Your task to perform on an android device: Open the Play Movies app and select the watchlist tab. Image 0: 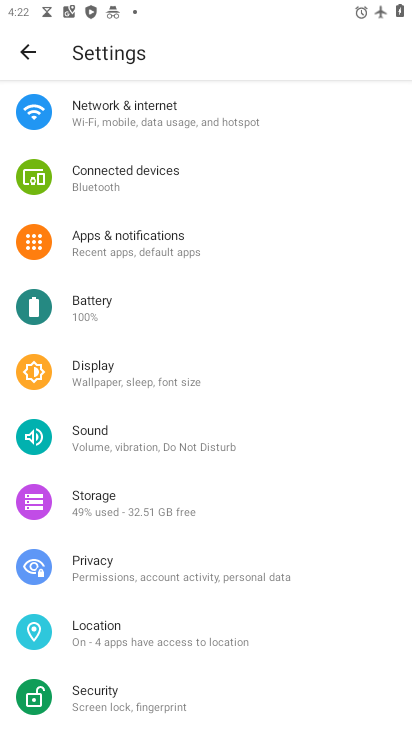
Step 0: press back button
Your task to perform on an android device: Open the Play Movies app and select the watchlist tab. Image 1: 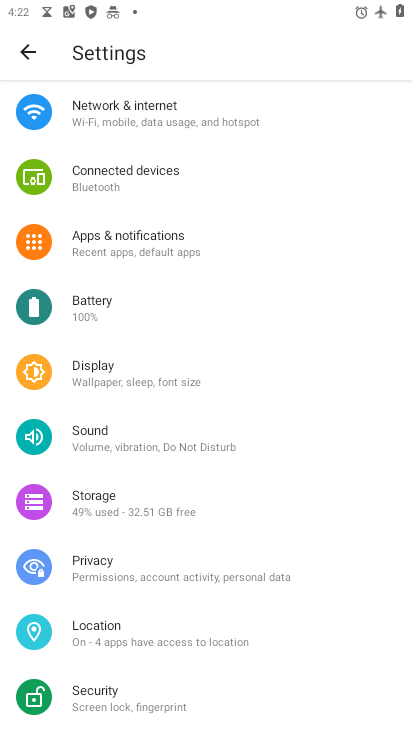
Step 1: press back button
Your task to perform on an android device: Open the Play Movies app and select the watchlist tab. Image 2: 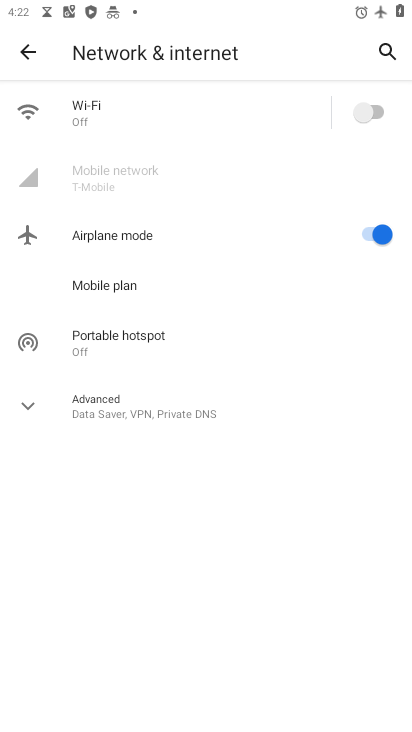
Step 2: press back button
Your task to perform on an android device: Open the Play Movies app and select the watchlist tab. Image 3: 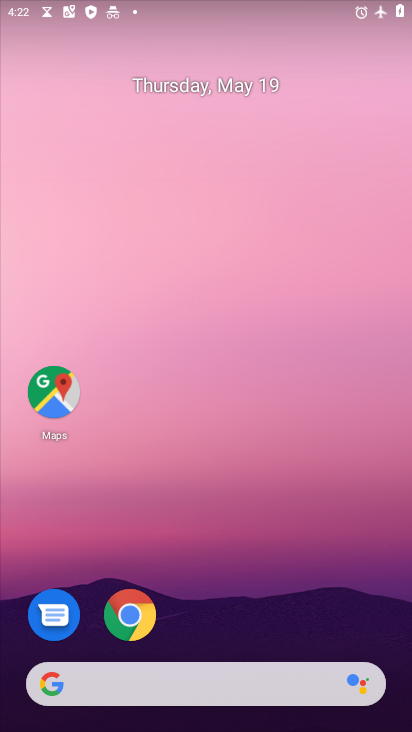
Step 3: drag from (264, 627) to (188, 200)
Your task to perform on an android device: Open the Play Movies app and select the watchlist tab. Image 4: 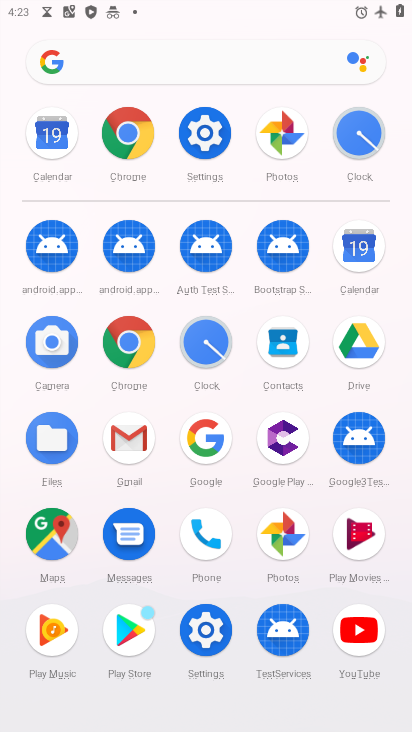
Step 4: click (350, 640)
Your task to perform on an android device: Open the Play Movies app and select the watchlist tab. Image 5: 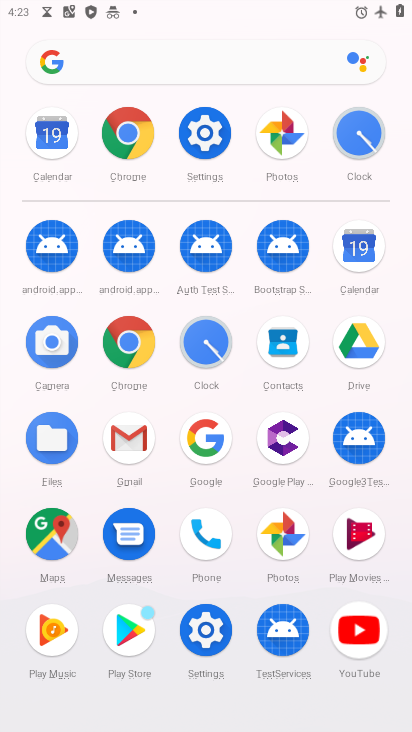
Step 5: click (352, 640)
Your task to perform on an android device: Open the Play Movies app and select the watchlist tab. Image 6: 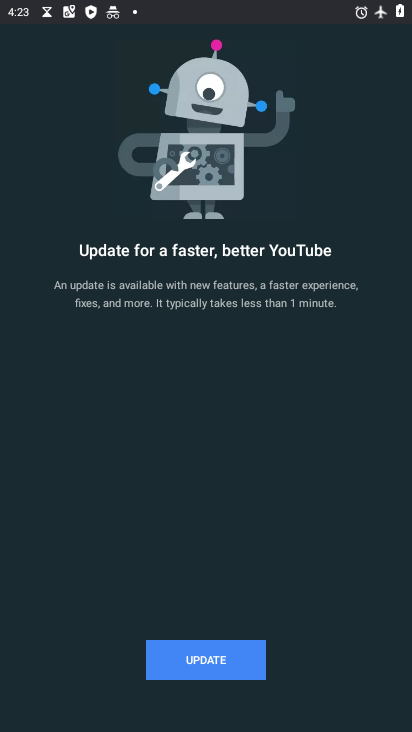
Step 6: click (214, 663)
Your task to perform on an android device: Open the Play Movies app and select the watchlist tab. Image 7: 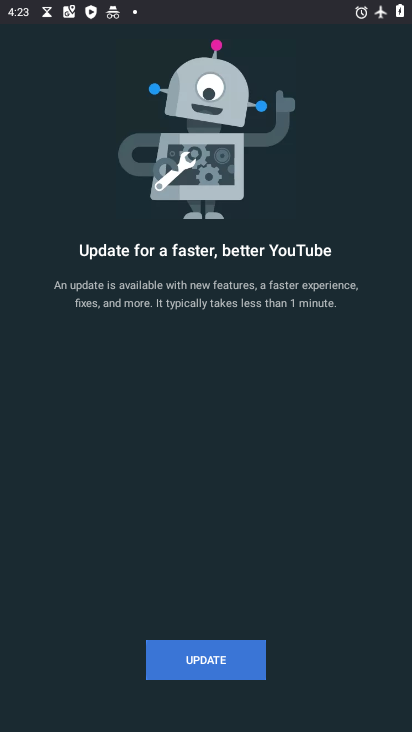
Step 7: click (214, 663)
Your task to perform on an android device: Open the Play Movies app and select the watchlist tab. Image 8: 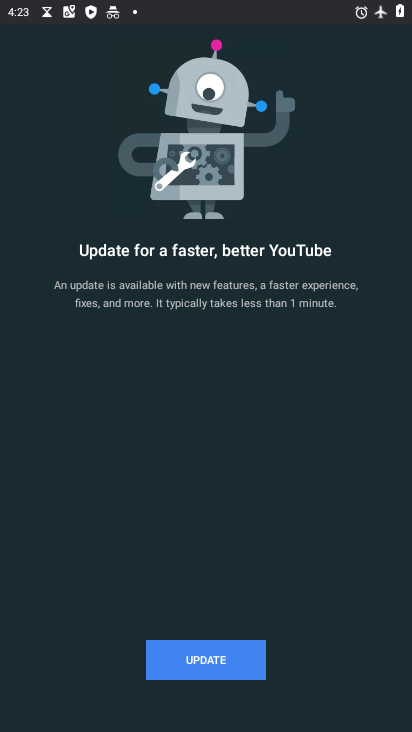
Step 8: click (214, 663)
Your task to perform on an android device: Open the Play Movies app and select the watchlist tab. Image 9: 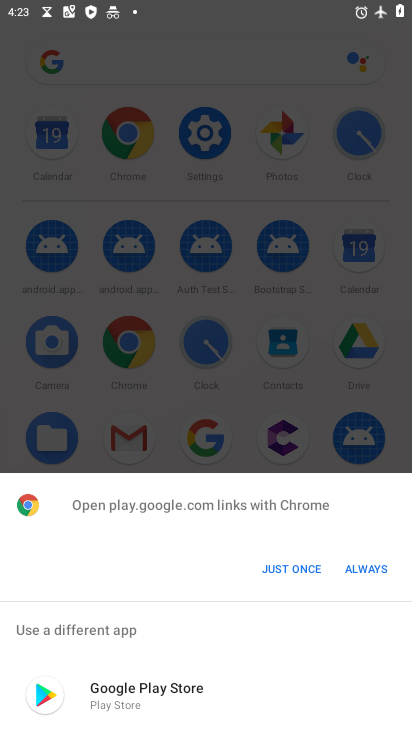
Step 9: drag from (182, 620) to (182, 308)
Your task to perform on an android device: Open the Play Movies app and select the watchlist tab. Image 10: 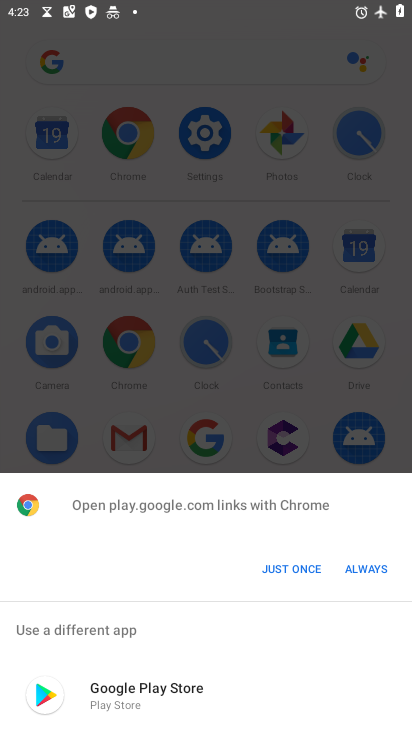
Step 10: click (60, 196)
Your task to perform on an android device: Open the Play Movies app and select the watchlist tab. Image 11: 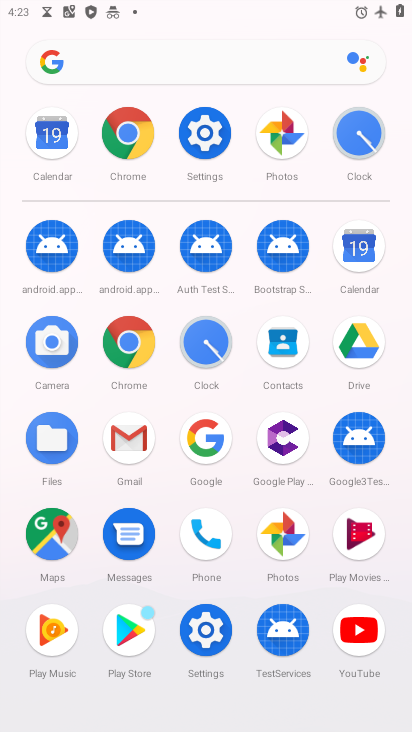
Step 11: click (357, 640)
Your task to perform on an android device: Open the Play Movies app and select the watchlist tab. Image 12: 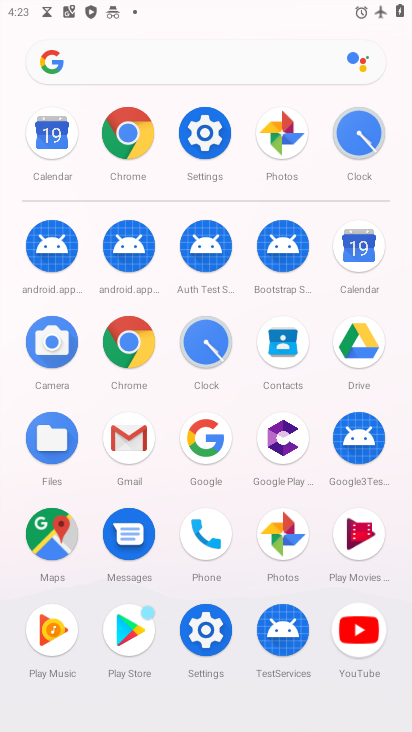
Step 12: click (357, 640)
Your task to perform on an android device: Open the Play Movies app and select the watchlist tab. Image 13: 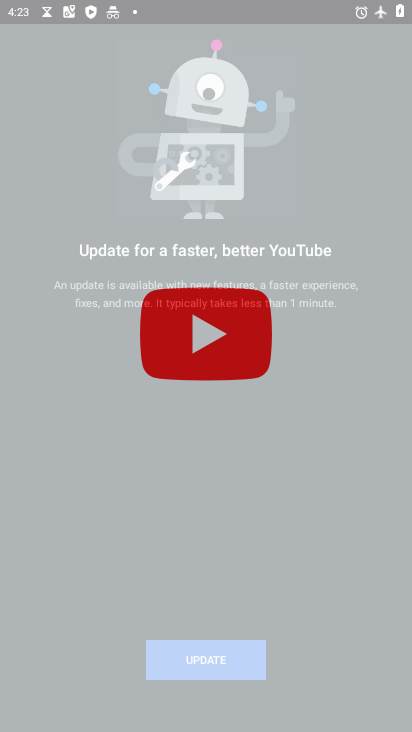
Step 13: click (357, 640)
Your task to perform on an android device: Open the Play Movies app and select the watchlist tab. Image 14: 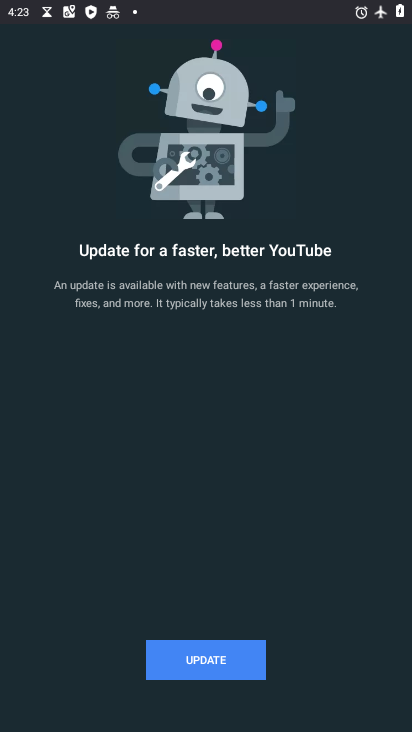
Step 14: click (358, 639)
Your task to perform on an android device: Open the Play Movies app and select the watchlist tab. Image 15: 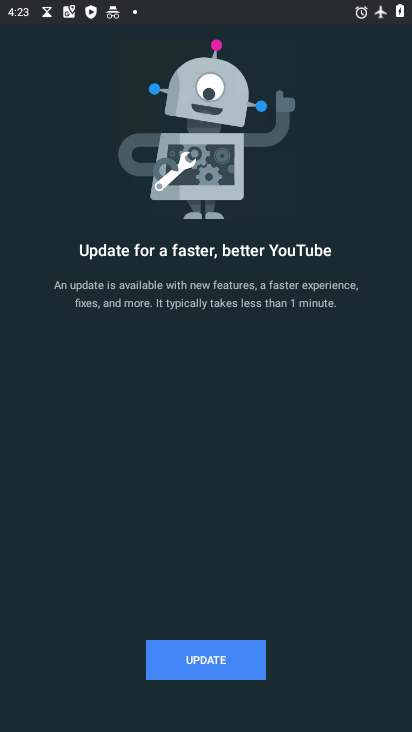
Step 15: click (214, 651)
Your task to perform on an android device: Open the Play Movies app and select the watchlist tab. Image 16: 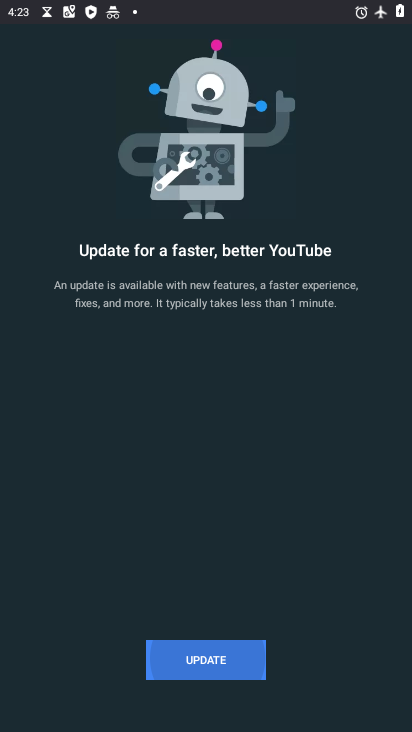
Step 16: click (215, 651)
Your task to perform on an android device: Open the Play Movies app and select the watchlist tab. Image 17: 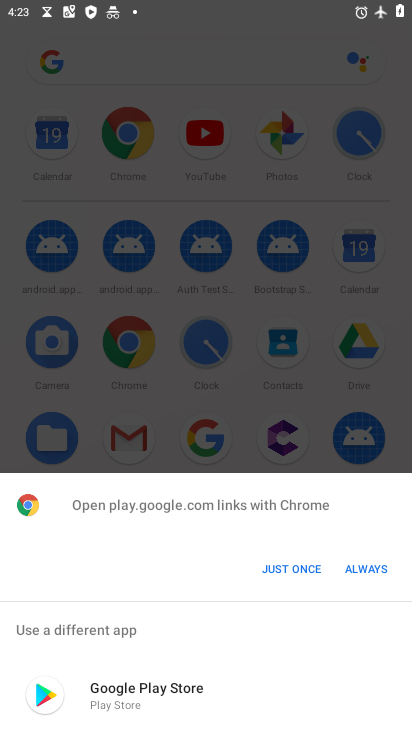
Step 17: click (123, 695)
Your task to perform on an android device: Open the Play Movies app and select the watchlist tab. Image 18: 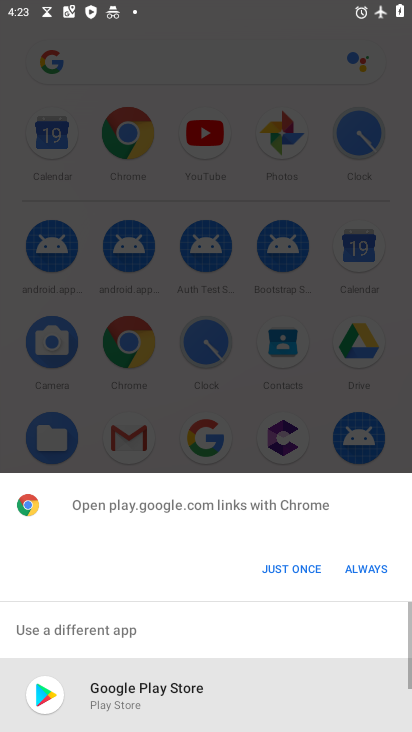
Step 18: click (123, 695)
Your task to perform on an android device: Open the Play Movies app and select the watchlist tab. Image 19: 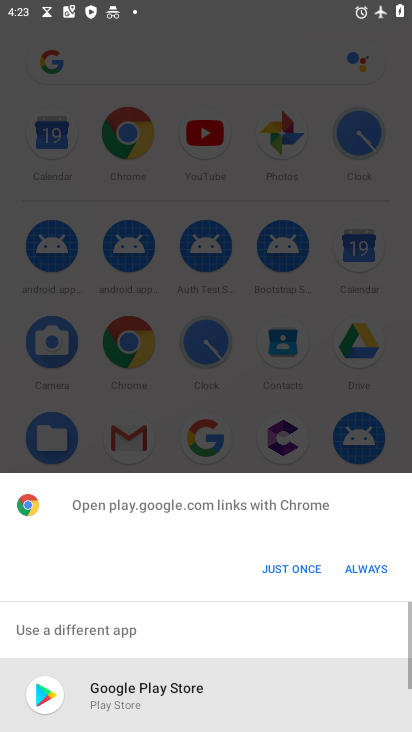
Step 19: click (119, 684)
Your task to perform on an android device: Open the Play Movies app and select the watchlist tab. Image 20: 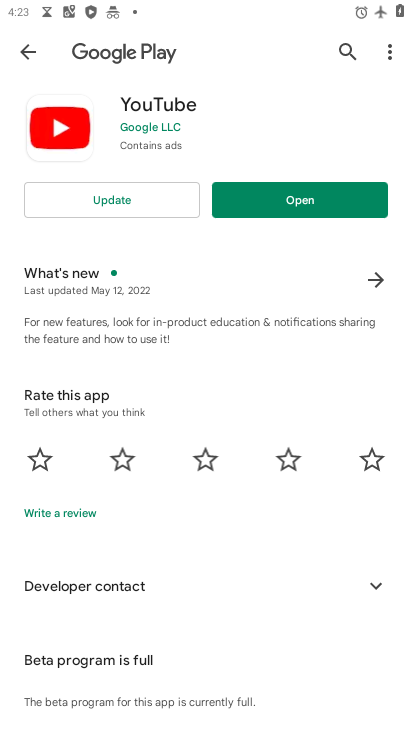
Step 20: click (116, 200)
Your task to perform on an android device: Open the Play Movies app and select the watchlist tab. Image 21: 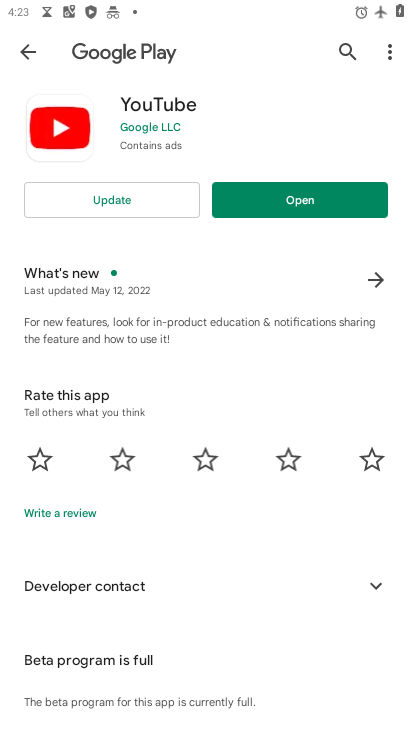
Step 21: click (116, 200)
Your task to perform on an android device: Open the Play Movies app and select the watchlist tab. Image 22: 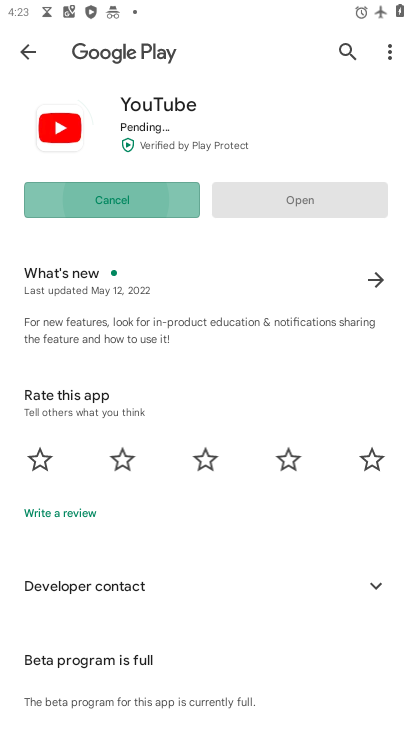
Step 22: click (116, 200)
Your task to perform on an android device: Open the Play Movies app and select the watchlist tab. Image 23: 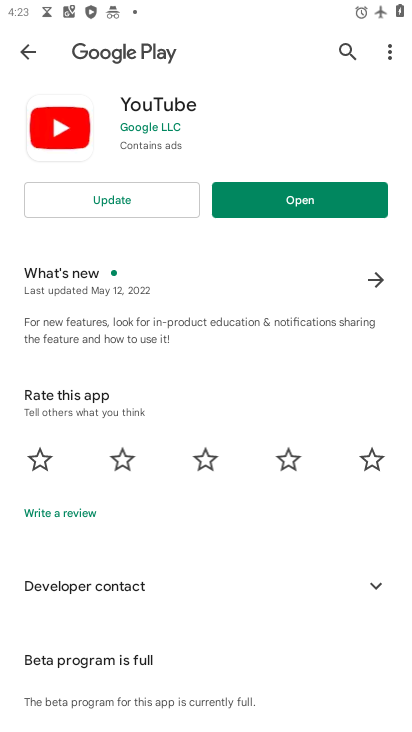
Step 23: click (285, 207)
Your task to perform on an android device: Open the Play Movies app and select the watchlist tab. Image 24: 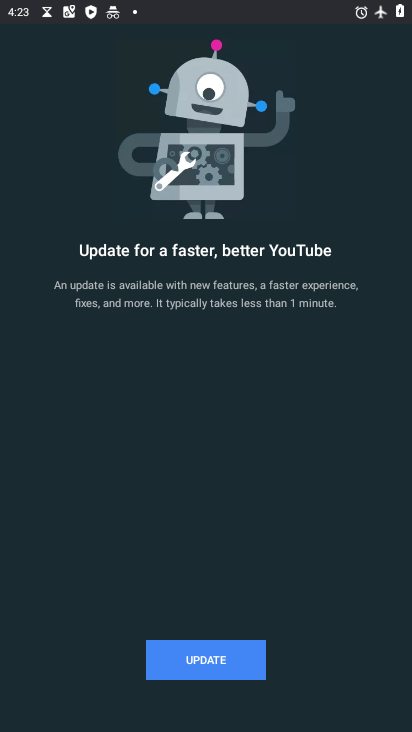
Step 24: click (218, 660)
Your task to perform on an android device: Open the Play Movies app and select the watchlist tab. Image 25: 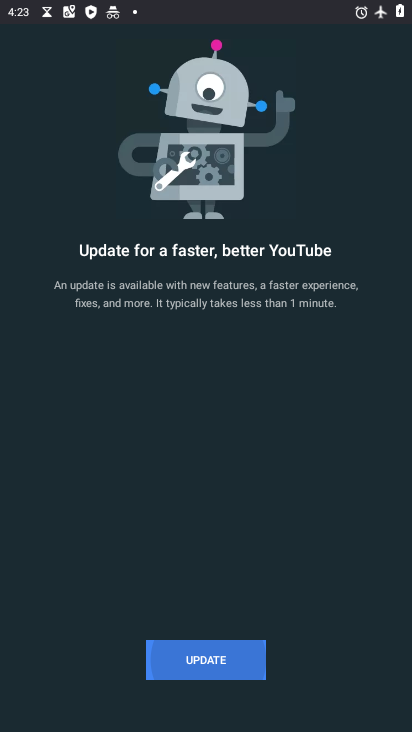
Step 25: click (218, 660)
Your task to perform on an android device: Open the Play Movies app and select the watchlist tab. Image 26: 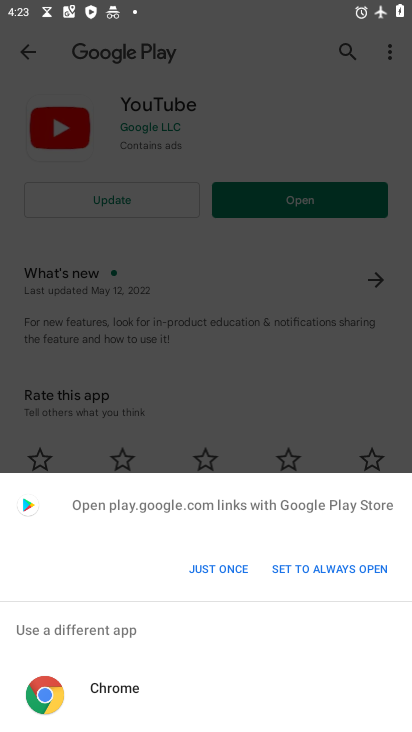
Step 26: click (285, 186)
Your task to perform on an android device: Open the Play Movies app and select the watchlist tab. Image 27: 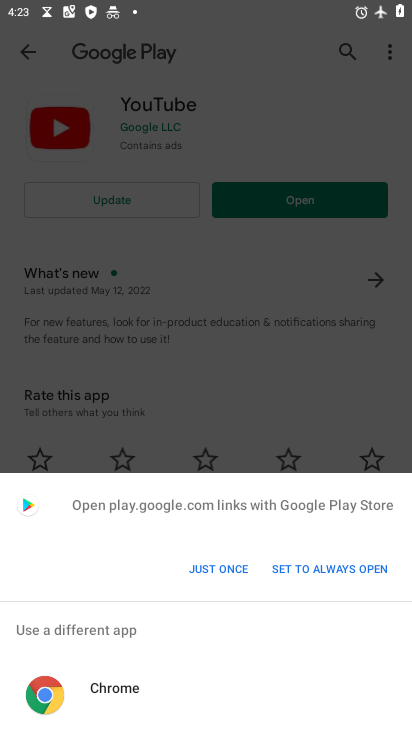
Step 27: click (285, 187)
Your task to perform on an android device: Open the Play Movies app and select the watchlist tab. Image 28: 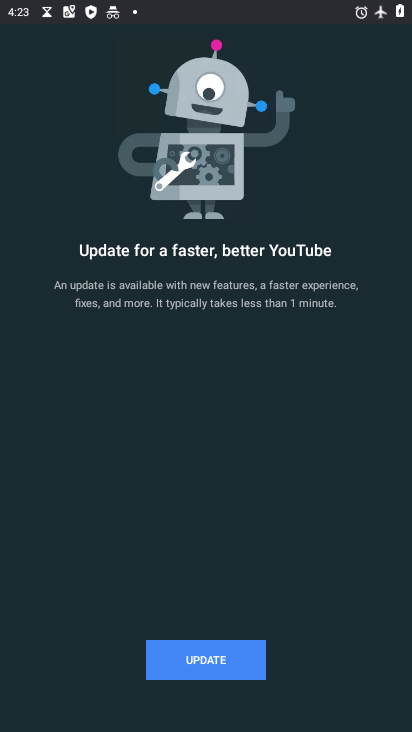
Step 28: click (200, 655)
Your task to perform on an android device: Open the Play Movies app and select the watchlist tab. Image 29: 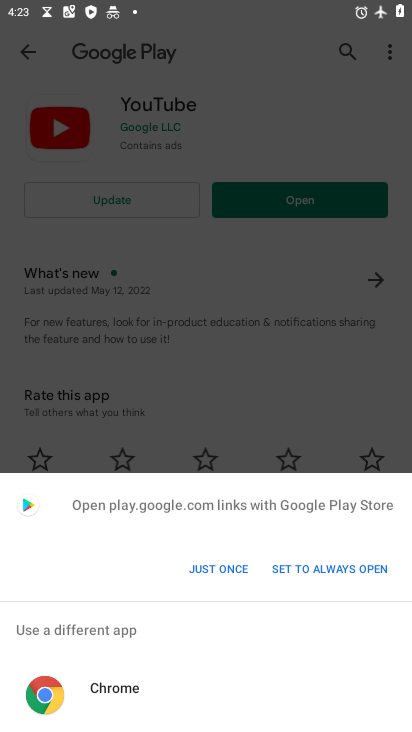
Step 29: click (294, 202)
Your task to perform on an android device: Open the Play Movies app and select the watchlist tab. Image 30: 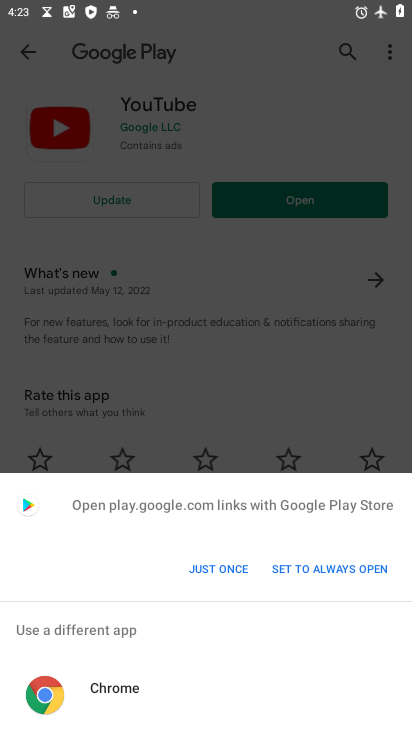
Step 30: click (294, 201)
Your task to perform on an android device: Open the Play Movies app and select the watchlist tab. Image 31: 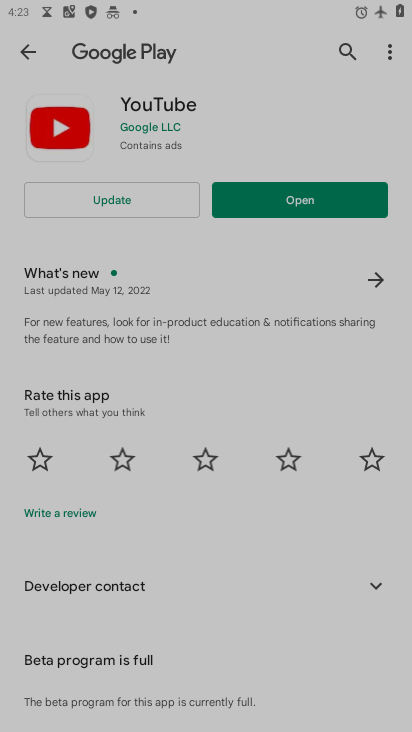
Step 31: click (294, 201)
Your task to perform on an android device: Open the Play Movies app and select the watchlist tab. Image 32: 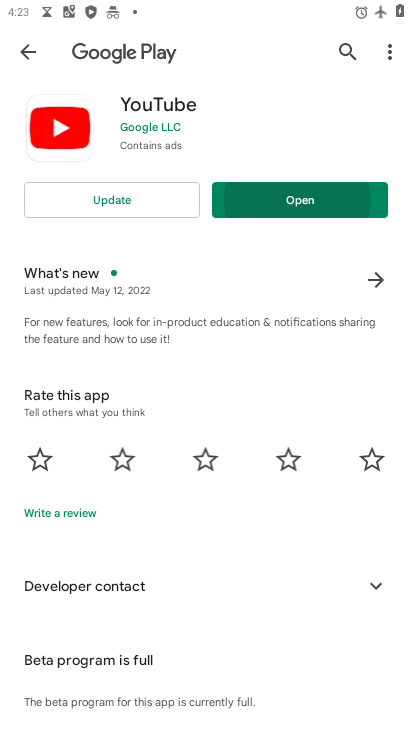
Step 32: click (294, 201)
Your task to perform on an android device: Open the Play Movies app and select the watchlist tab. Image 33: 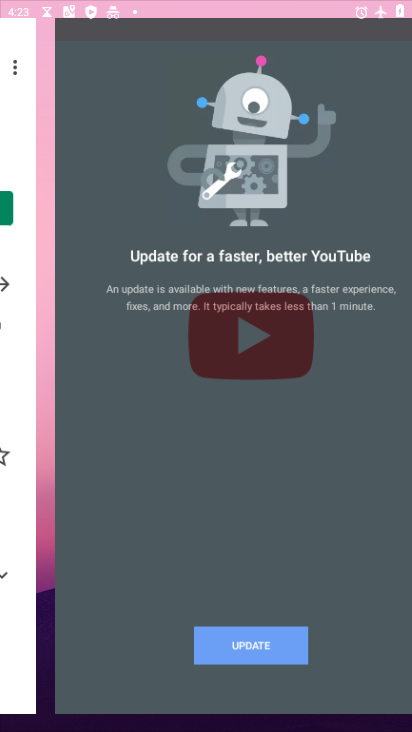
Step 33: click (295, 200)
Your task to perform on an android device: Open the Play Movies app and select the watchlist tab. Image 34: 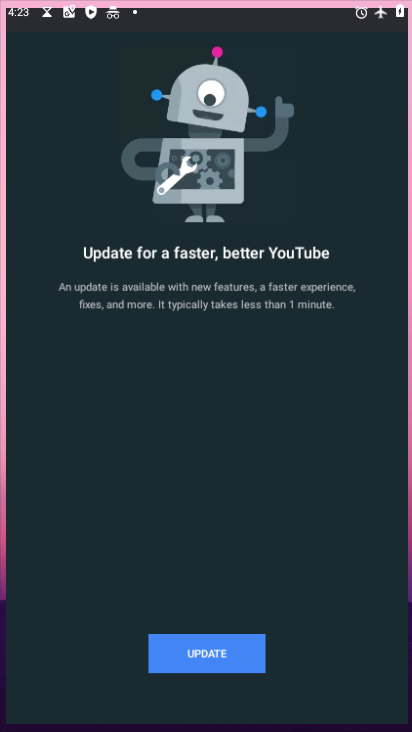
Step 34: click (296, 200)
Your task to perform on an android device: Open the Play Movies app and select the watchlist tab. Image 35: 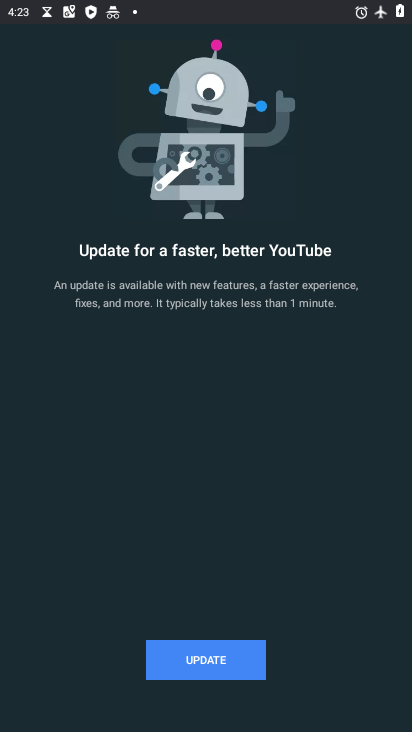
Step 35: click (204, 670)
Your task to perform on an android device: Open the Play Movies app and select the watchlist tab. Image 36: 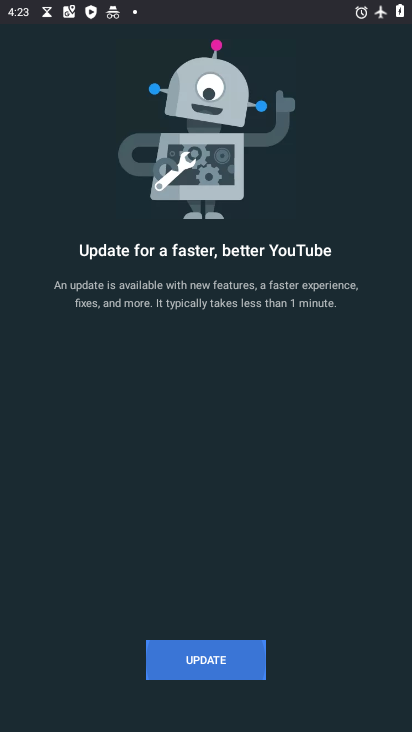
Step 36: click (206, 668)
Your task to perform on an android device: Open the Play Movies app and select the watchlist tab. Image 37: 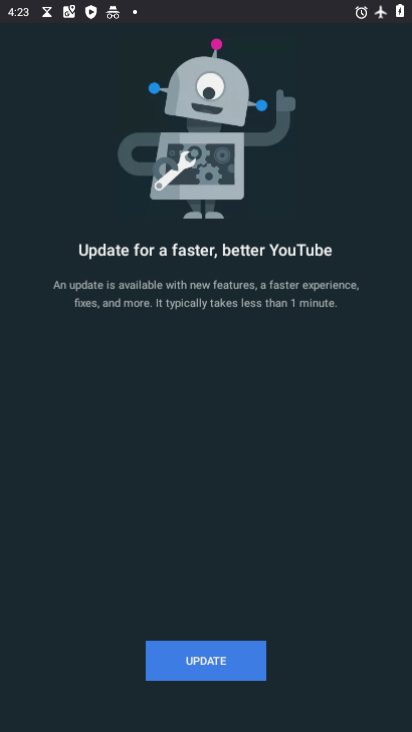
Step 37: click (206, 668)
Your task to perform on an android device: Open the Play Movies app and select the watchlist tab. Image 38: 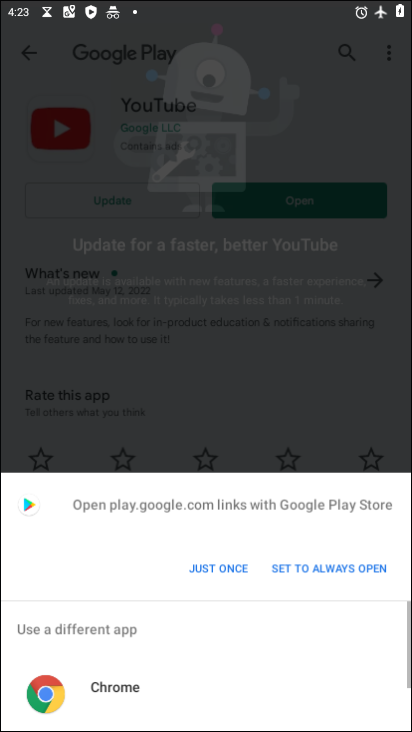
Step 38: click (206, 668)
Your task to perform on an android device: Open the Play Movies app and select the watchlist tab. Image 39: 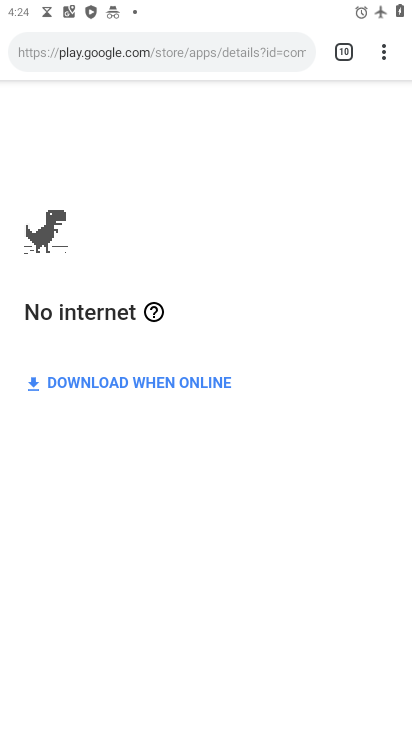
Step 39: task complete